Your task to perform on an android device: Go to internet settings Image 0: 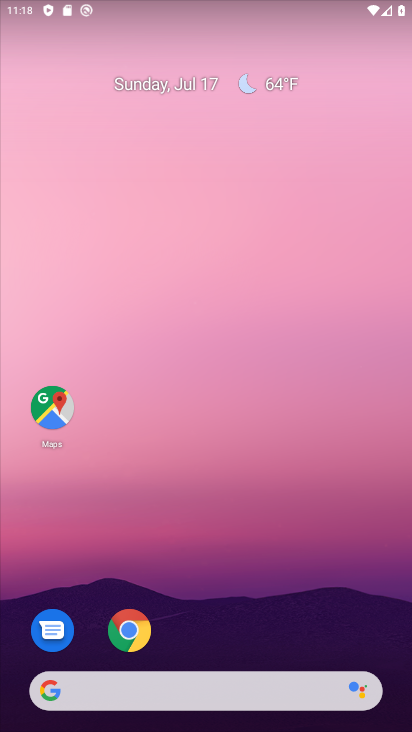
Step 0: drag from (388, 638) to (324, 140)
Your task to perform on an android device: Go to internet settings Image 1: 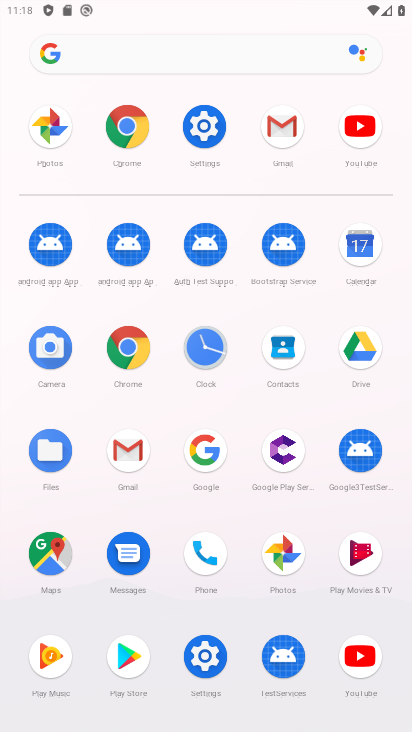
Step 1: click (201, 658)
Your task to perform on an android device: Go to internet settings Image 2: 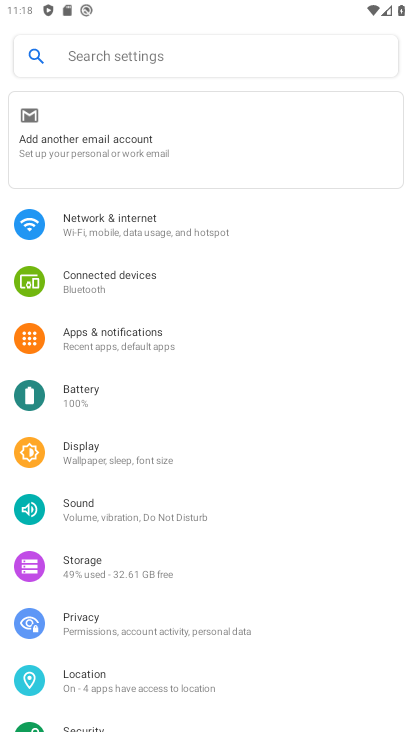
Step 2: click (90, 214)
Your task to perform on an android device: Go to internet settings Image 3: 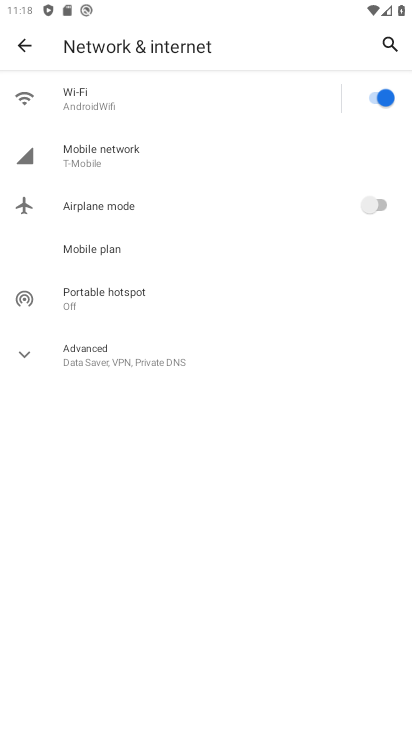
Step 3: click (73, 96)
Your task to perform on an android device: Go to internet settings Image 4: 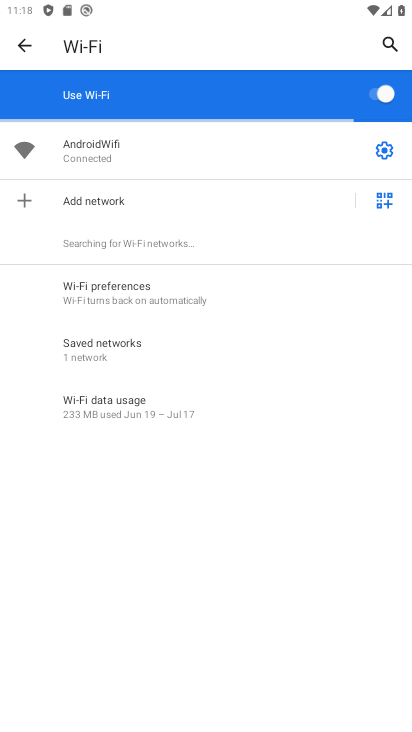
Step 4: click (386, 149)
Your task to perform on an android device: Go to internet settings Image 5: 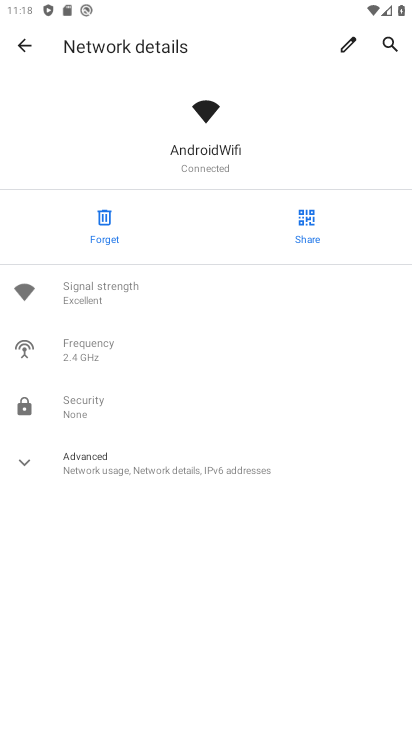
Step 5: task complete